Your task to perform on an android device: Show me popular games on the Play Store Image 0: 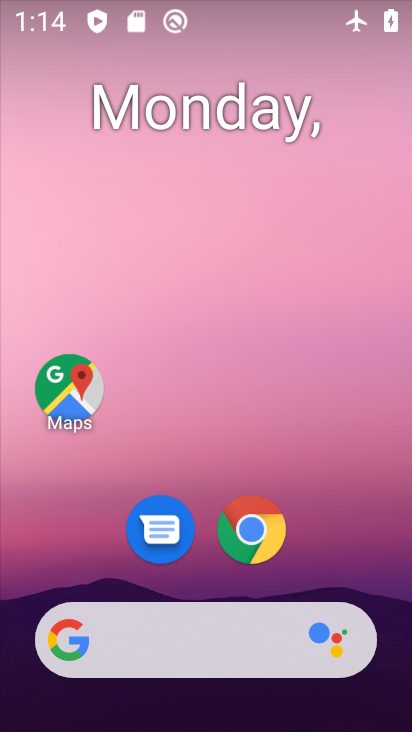
Step 0: drag from (364, 446) to (390, 67)
Your task to perform on an android device: Show me popular games on the Play Store Image 1: 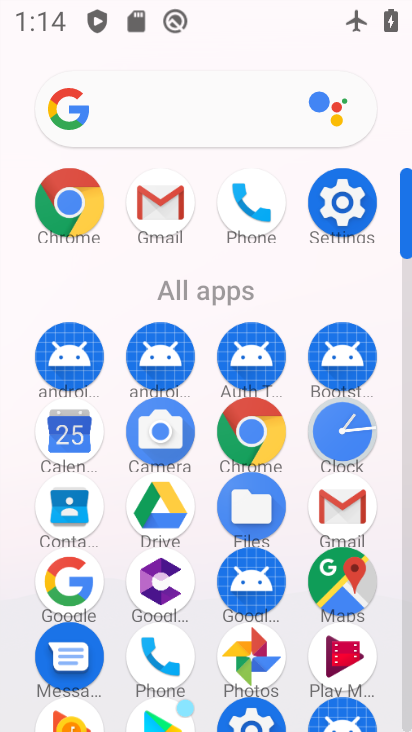
Step 1: drag from (390, 571) to (401, 165)
Your task to perform on an android device: Show me popular games on the Play Store Image 2: 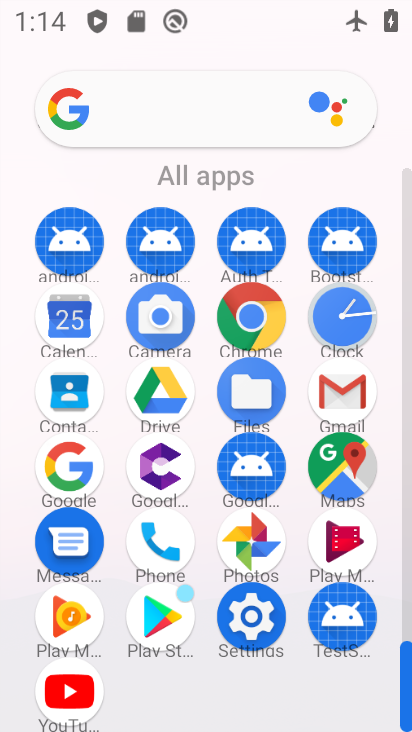
Step 2: click (171, 618)
Your task to perform on an android device: Show me popular games on the Play Store Image 3: 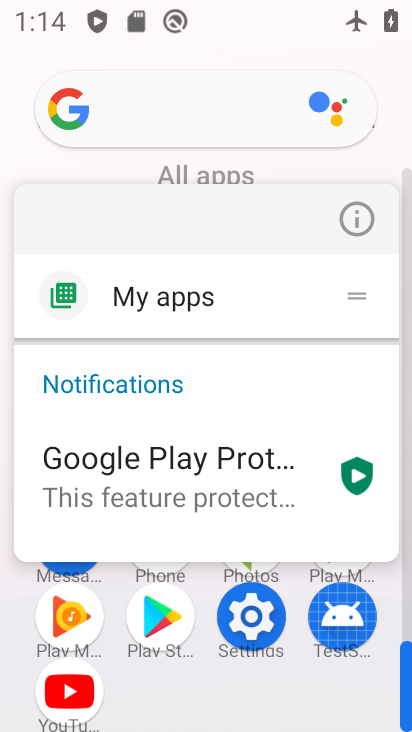
Step 3: click (167, 615)
Your task to perform on an android device: Show me popular games on the Play Store Image 4: 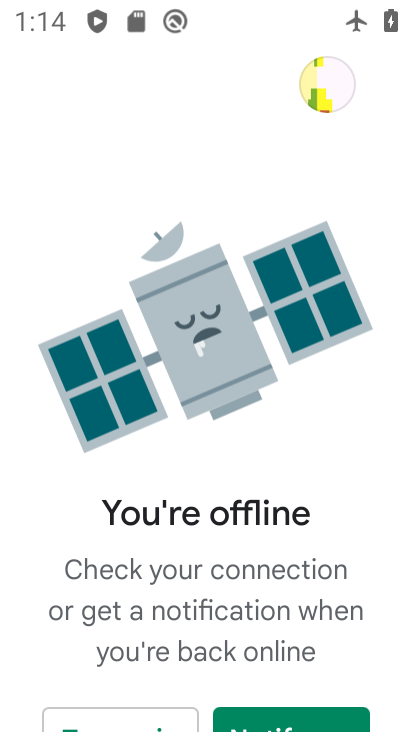
Step 4: drag from (344, 359) to (320, 114)
Your task to perform on an android device: Show me popular games on the Play Store Image 5: 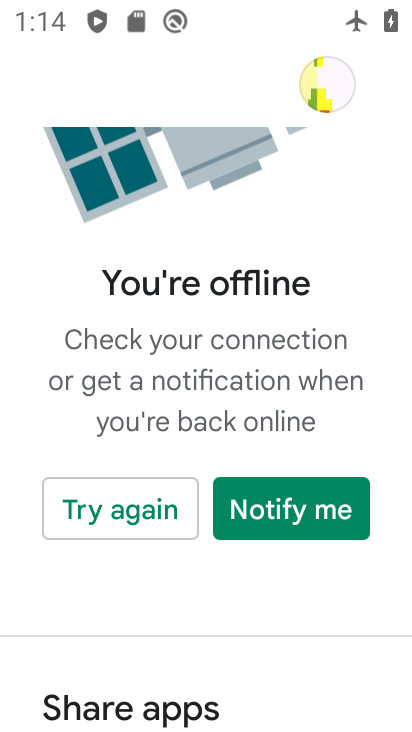
Step 5: click (154, 517)
Your task to perform on an android device: Show me popular games on the Play Store Image 6: 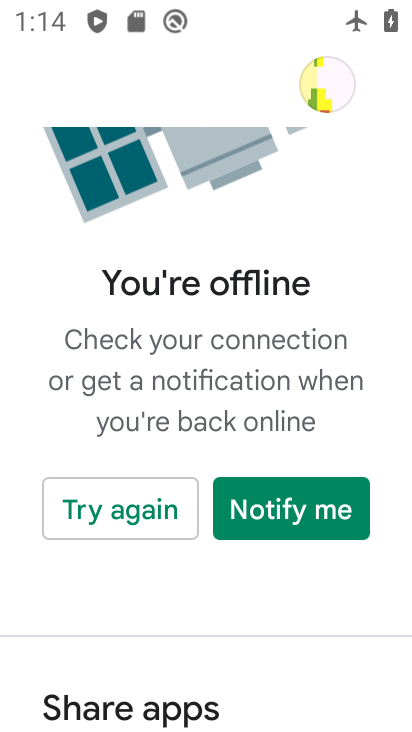
Step 6: click (145, 519)
Your task to perform on an android device: Show me popular games on the Play Store Image 7: 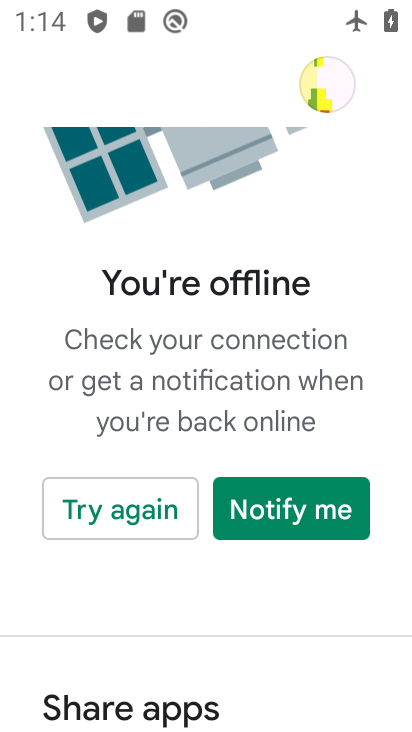
Step 7: click (281, 519)
Your task to perform on an android device: Show me popular games on the Play Store Image 8: 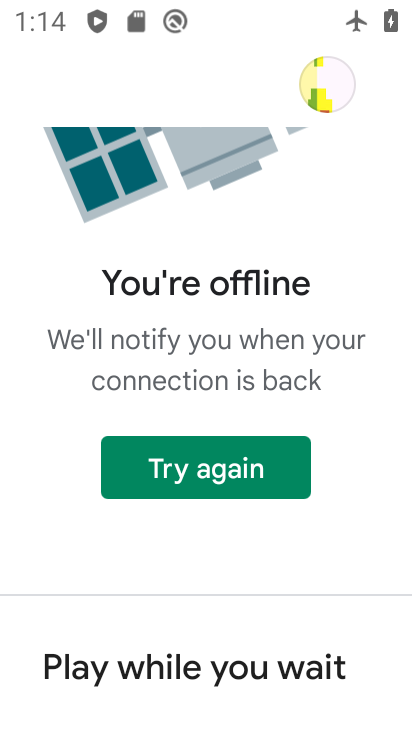
Step 8: click (211, 478)
Your task to perform on an android device: Show me popular games on the Play Store Image 9: 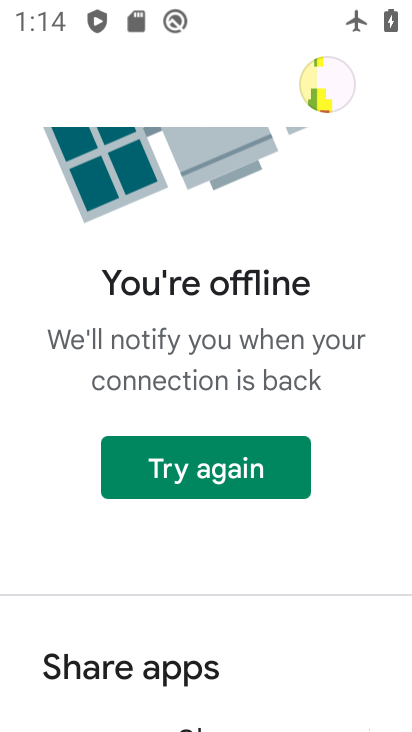
Step 9: click (253, 475)
Your task to perform on an android device: Show me popular games on the Play Store Image 10: 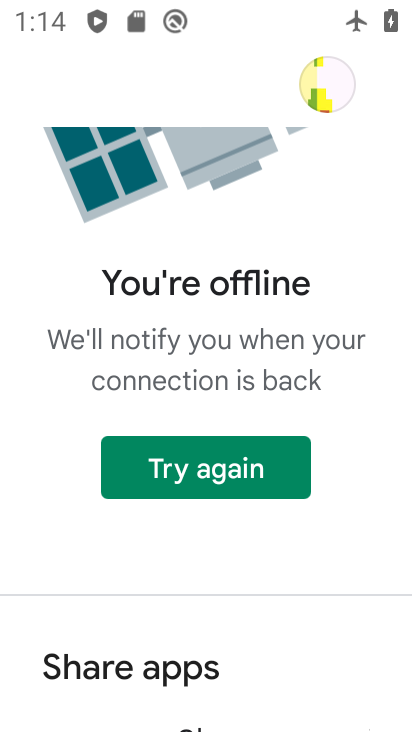
Step 10: click (244, 458)
Your task to perform on an android device: Show me popular games on the Play Store Image 11: 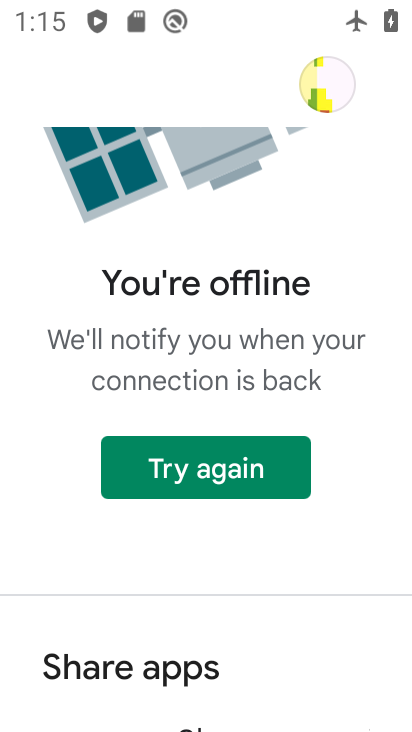
Step 11: task complete